Your task to perform on an android device: Go to internet settings Image 0: 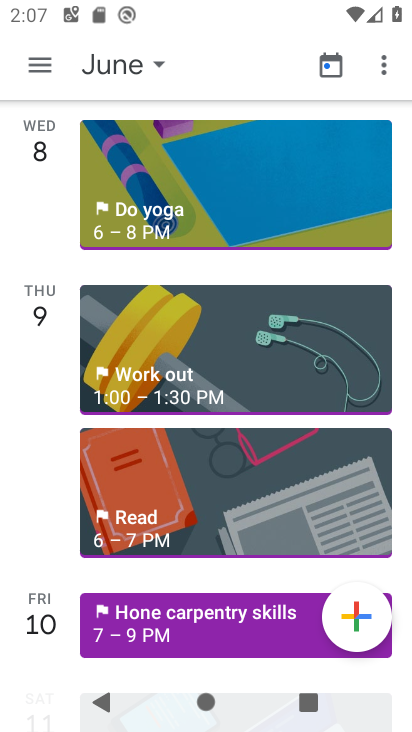
Step 0: press home button
Your task to perform on an android device: Go to internet settings Image 1: 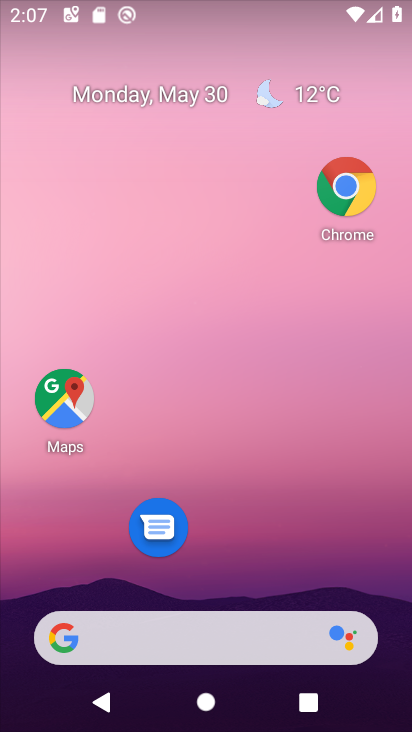
Step 1: drag from (223, 561) to (273, 257)
Your task to perform on an android device: Go to internet settings Image 2: 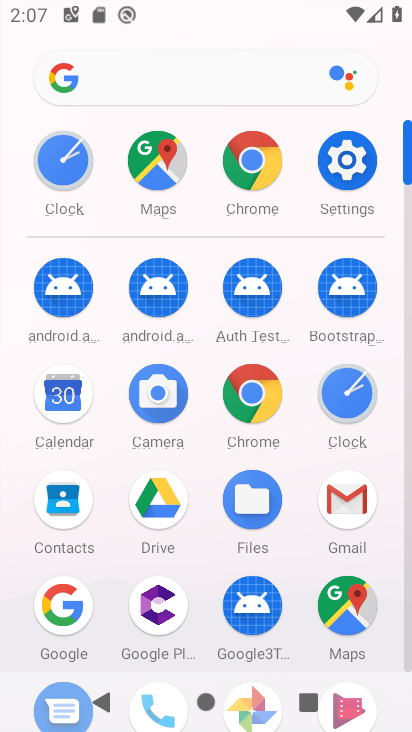
Step 2: click (344, 164)
Your task to perform on an android device: Go to internet settings Image 3: 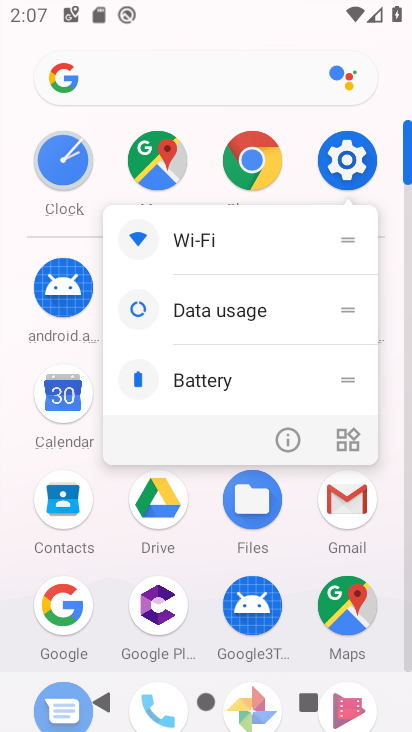
Step 3: click (286, 451)
Your task to perform on an android device: Go to internet settings Image 4: 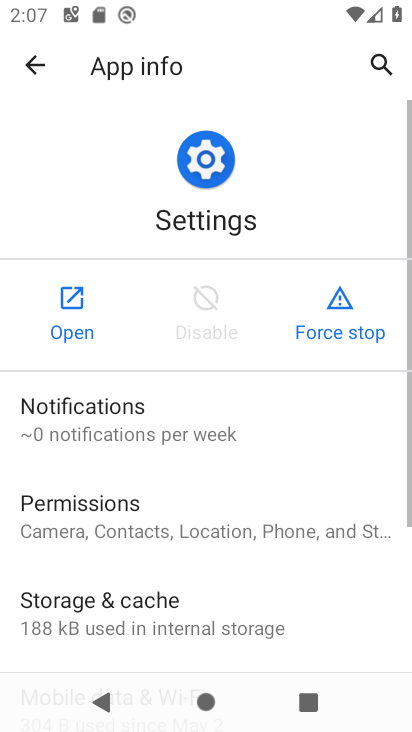
Step 4: click (90, 280)
Your task to perform on an android device: Go to internet settings Image 5: 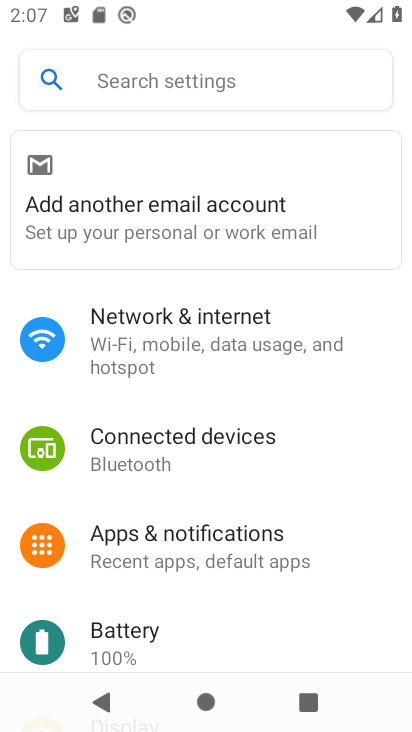
Step 5: click (159, 357)
Your task to perform on an android device: Go to internet settings Image 6: 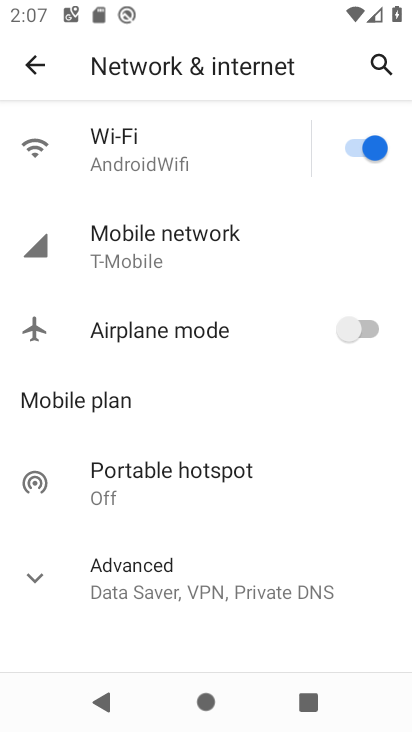
Step 6: task complete